Your task to perform on an android device: Search for the best 100% cotton t-shirts Image 0: 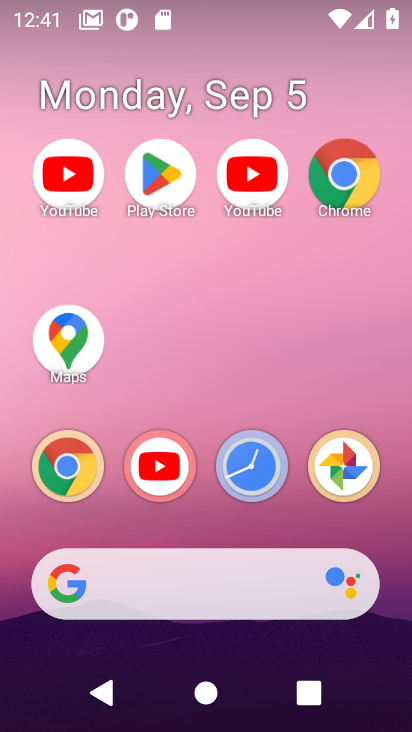
Step 0: click (337, 179)
Your task to perform on an android device: Search for the best 100% cotton t-shirts Image 1: 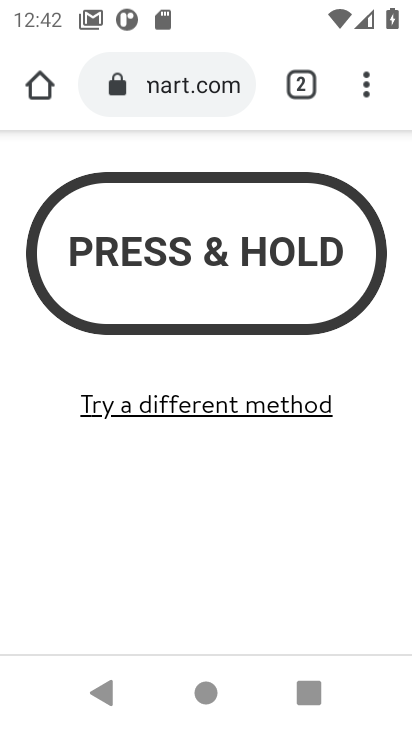
Step 1: click (213, 77)
Your task to perform on an android device: Search for the best 100% cotton t-shirts Image 2: 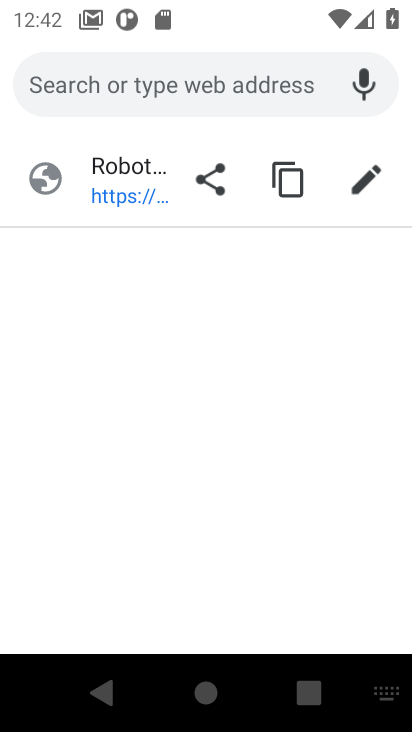
Step 2: type " best 100% cotton t-shirts"
Your task to perform on an android device: Search for the best 100% cotton t-shirts Image 3: 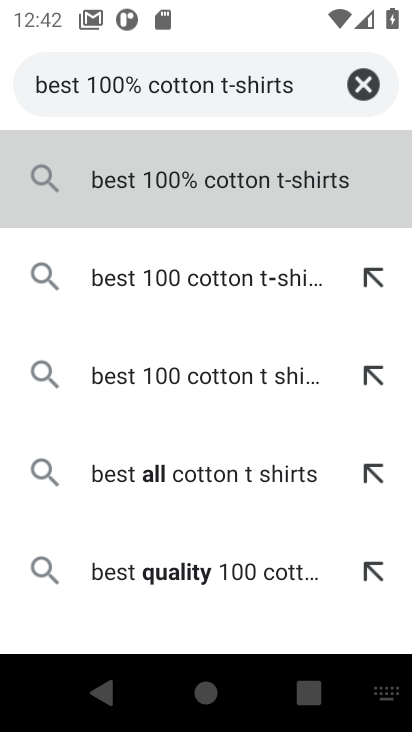
Step 3: click (253, 177)
Your task to perform on an android device: Search for the best 100% cotton t-shirts Image 4: 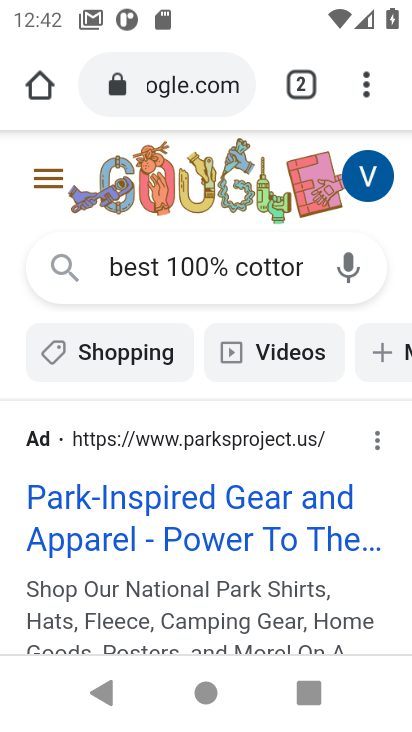
Step 4: click (204, 499)
Your task to perform on an android device: Search for the best 100% cotton t-shirts Image 5: 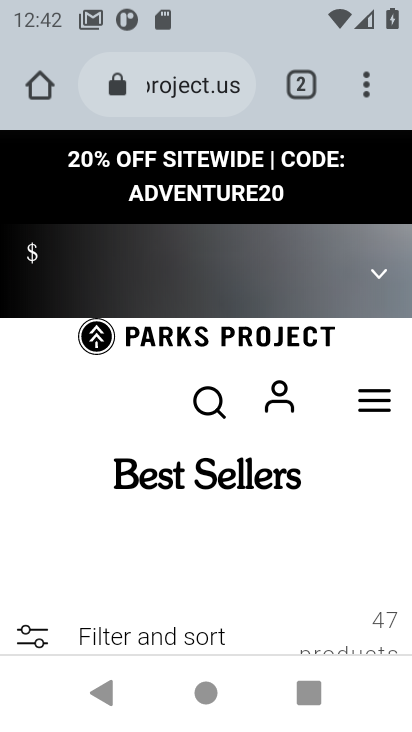
Step 5: task complete